Your task to perform on an android device: turn off airplane mode Image 0: 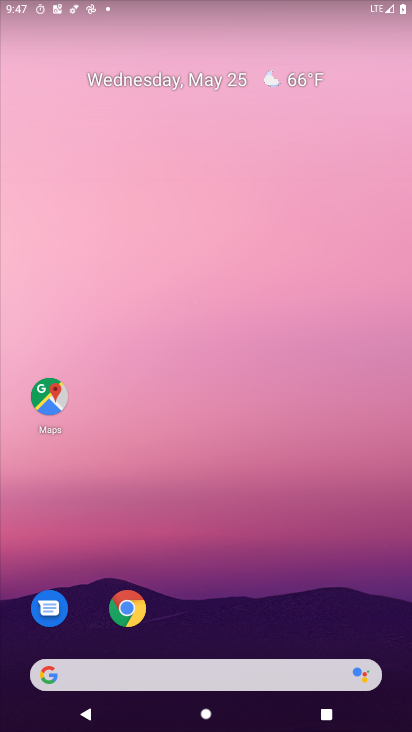
Step 0: drag from (234, 728) to (205, 168)
Your task to perform on an android device: turn off airplane mode Image 1: 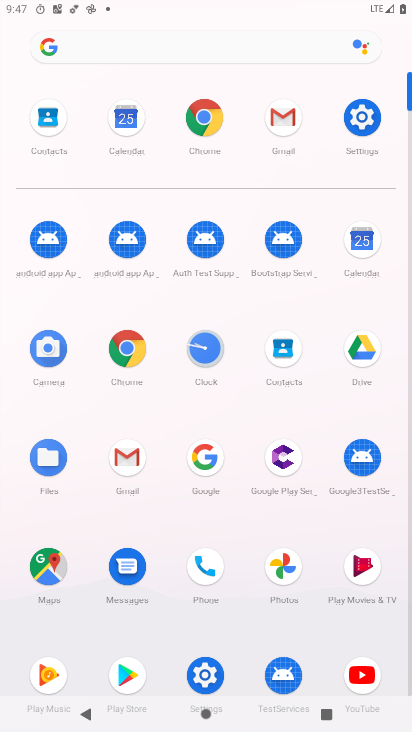
Step 1: click (362, 115)
Your task to perform on an android device: turn off airplane mode Image 2: 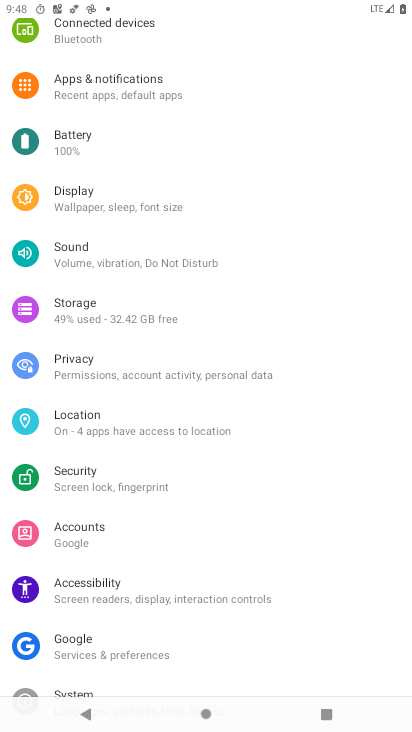
Step 2: drag from (160, 135) to (175, 446)
Your task to perform on an android device: turn off airplane mode Image 3: 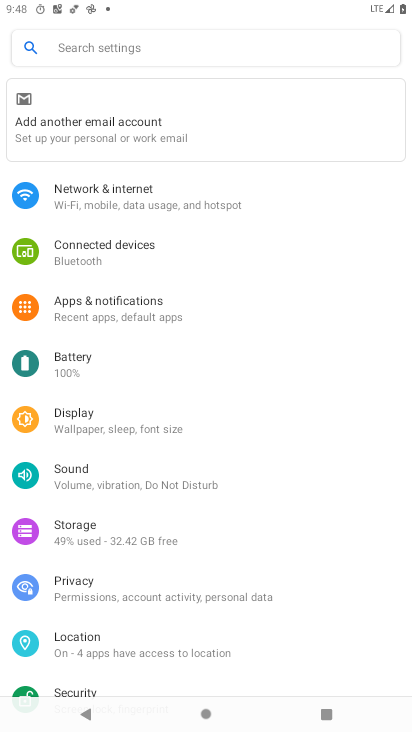
Step 3: click (129, 188)
Your task to perform on an android device: turn off airplane mode Image 4: 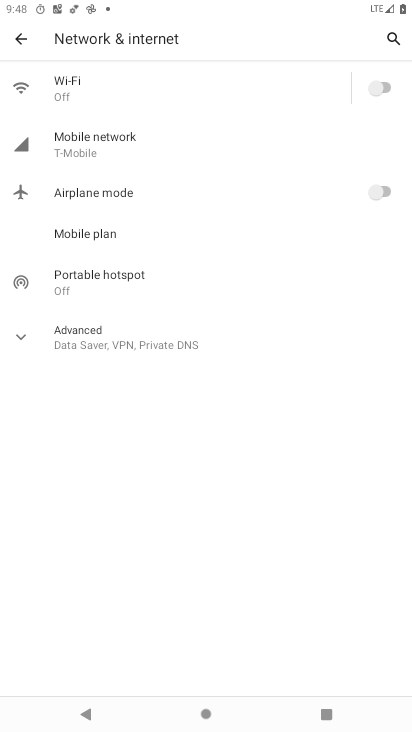
Step 4: task complete